Your task to perform on an android device: Show me productivity apps on the Play Store Image 0: 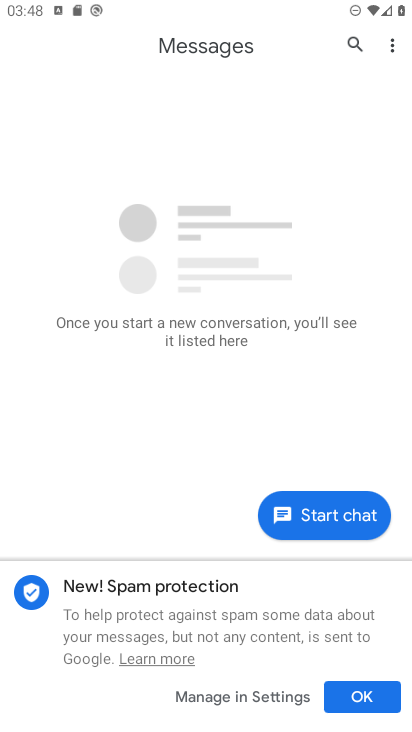
Step 0: press home button
Your task to perform on an android device: Show me productivity apps on the Play Store Image 1: 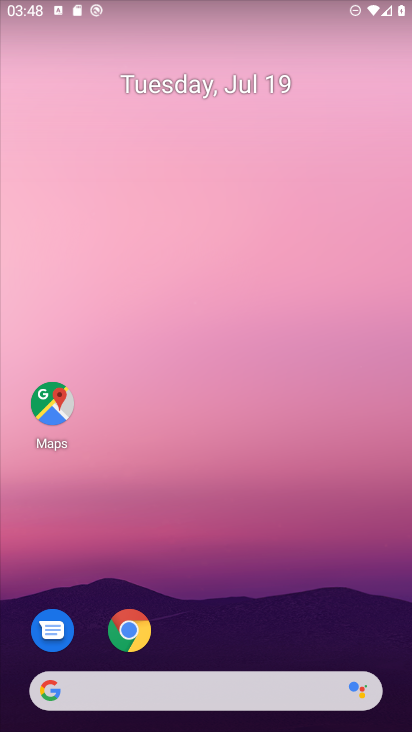
Step 1: drag from (344, 644) to (307, 195)
Your task to perform on an android device: Show me productivity apps on the Play Store Image 2: 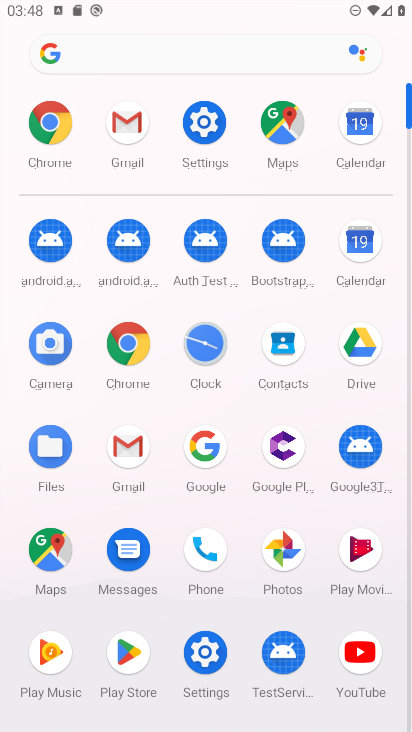
Step 2: click (128, 649)
Your task to perform on an android device: Show me productivity apps on the Play Store Image 3: 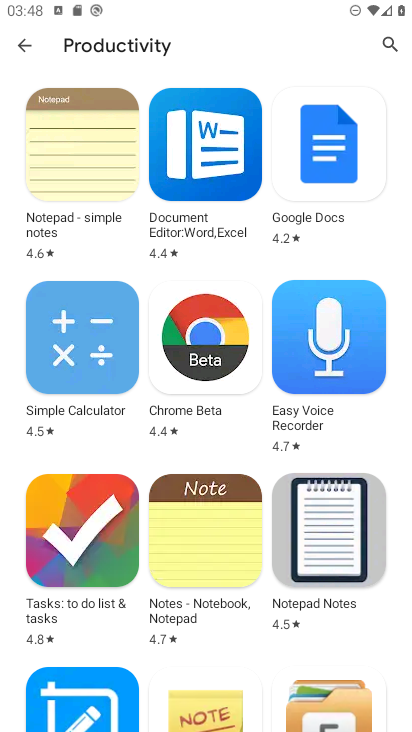
Step 3: task complete